Your task to perform on an android device: all mails in gmail Image 0: 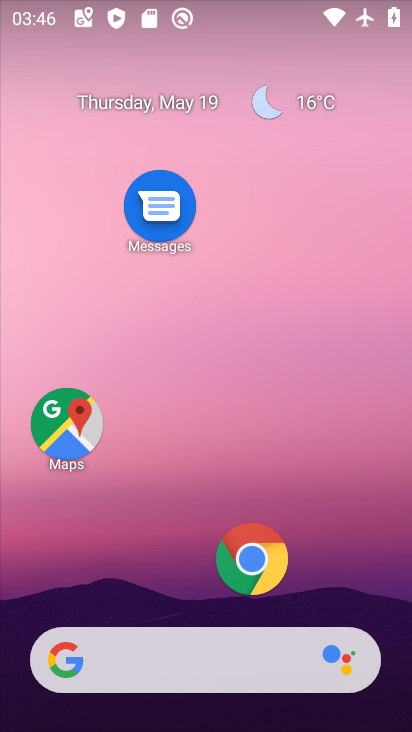
Step 0: drag from (201, 601) to (200, 283)
Your task to perform on an android device: all mails in gmail Image 1: 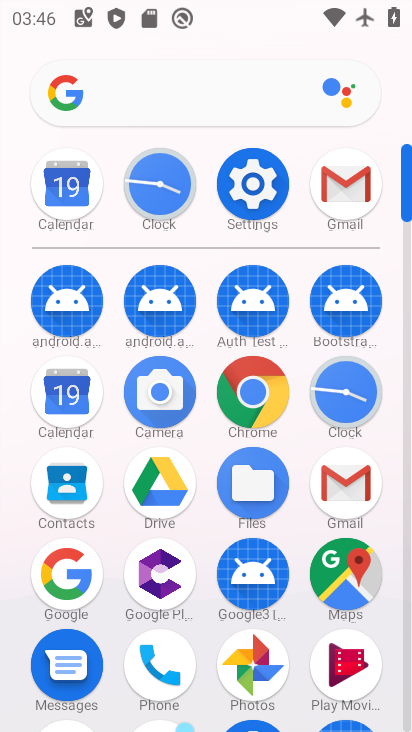
Step 1: click (332, 206)
Your task to perform on an android device: all mails in gmail Image 2: 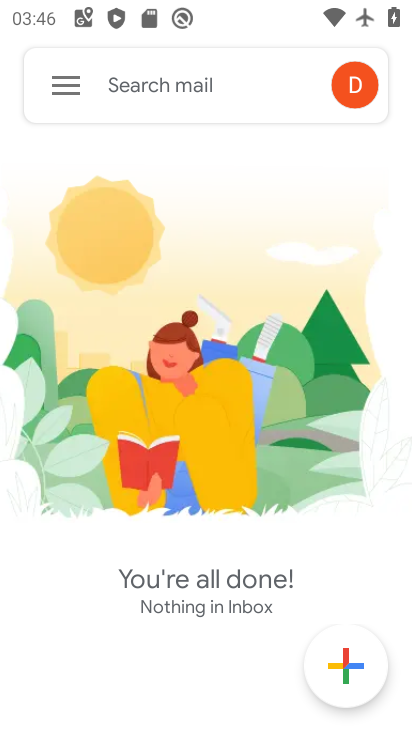
Step 2: click (50, 88)
Your task to perform on an android device: all mails in gmail Image 3: 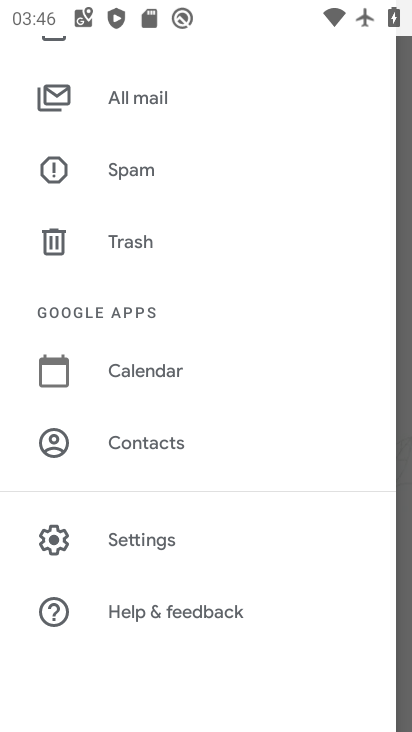
Step 3: click (146, 104)
Your task to perform on an android device: all mails in gmail Image 4: 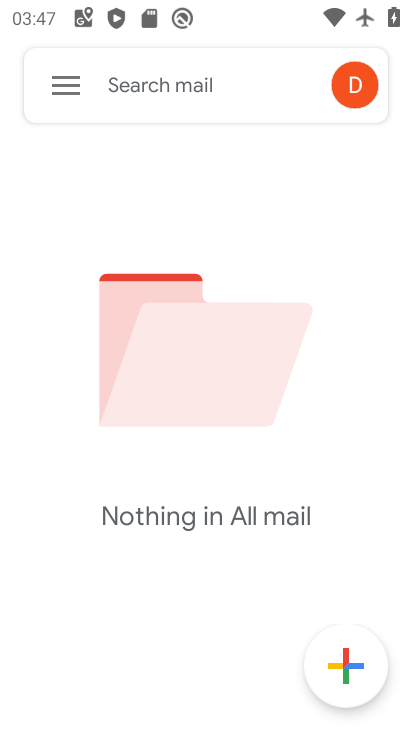
Step 4: click (74, 88)
Your task to perform on an android device: all mails in gmail Image 5: 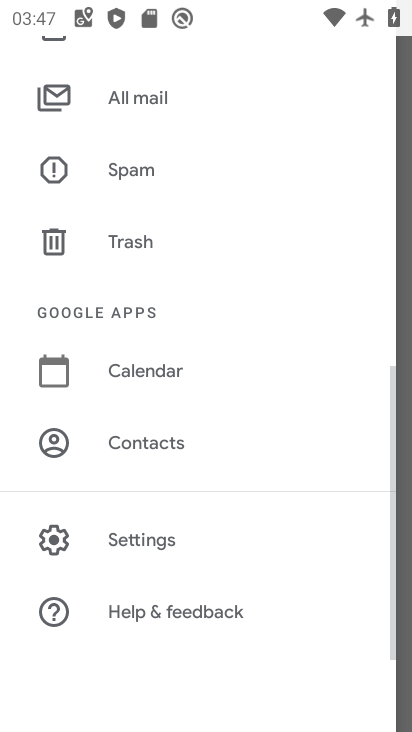
Step 5: click (154, 101)
Your task to perform on an android device: all mails in gmail Image 6: 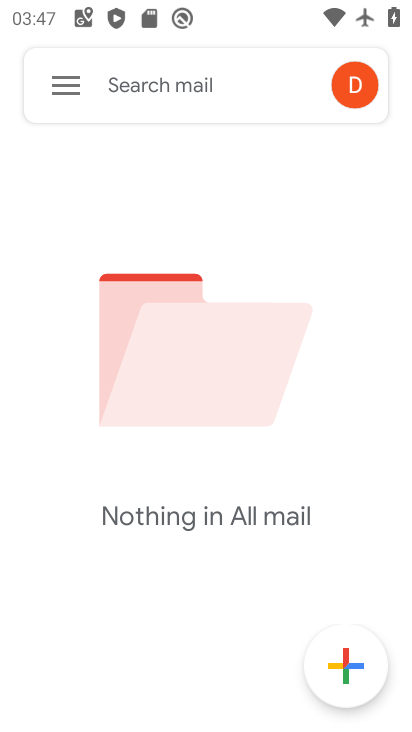
Step 6: task complete